Your task to perform on an android device: Open the calendar and show me this week's events? Image 0: 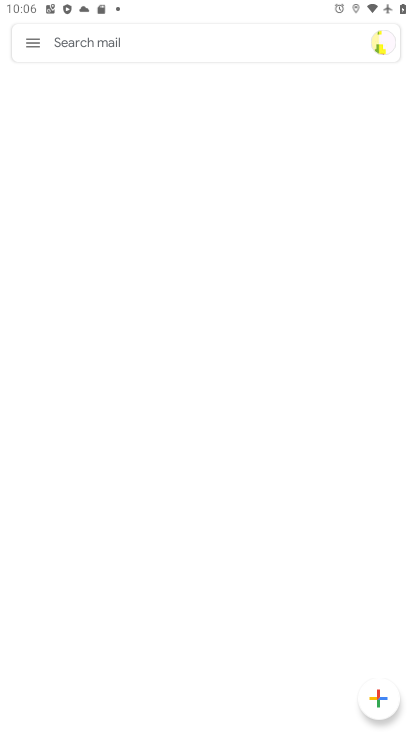
Step 0: press home button
Your task to perform on an android device: Open the calendar and show me this week's events? Image 1: 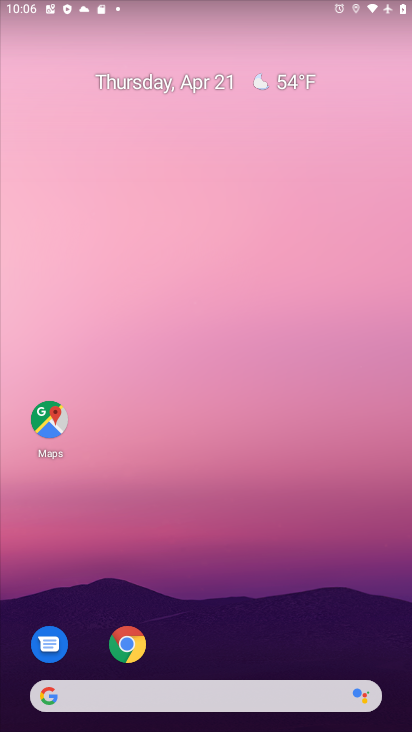
Step 1: drag from (182, 504) to (137, 167)
Your task to perform on an android device: Open the calendar and show me this week's events? Image 2: 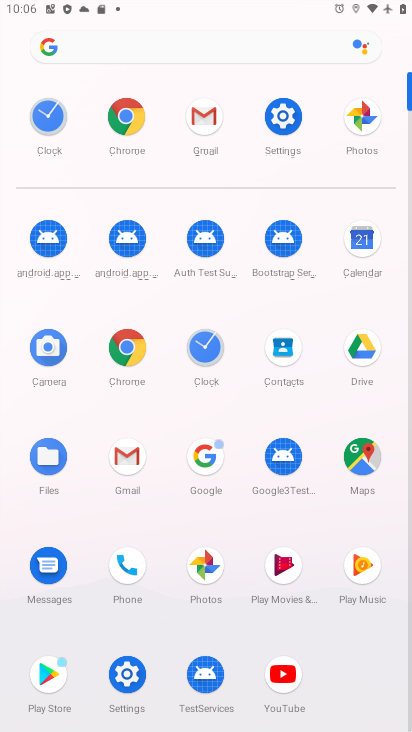
Step 2: click (363, 243)
Your task to perform on an android device: Open the calendar and show me this week's events? Image 3: 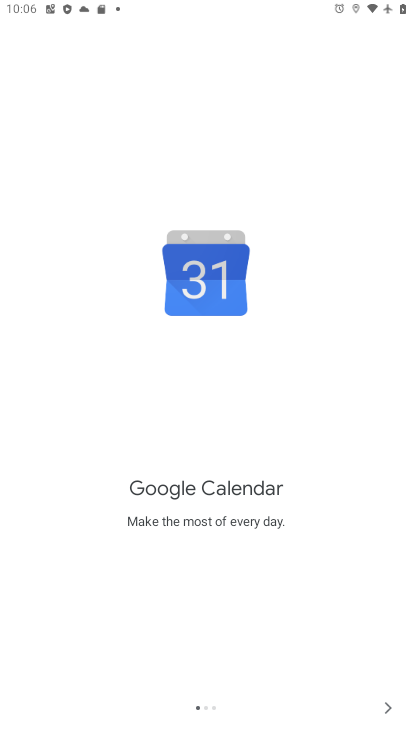
Step 3: click (390, 706)
Your task to perform on an android device: Open the calendar and show me this week's events? Image 4: 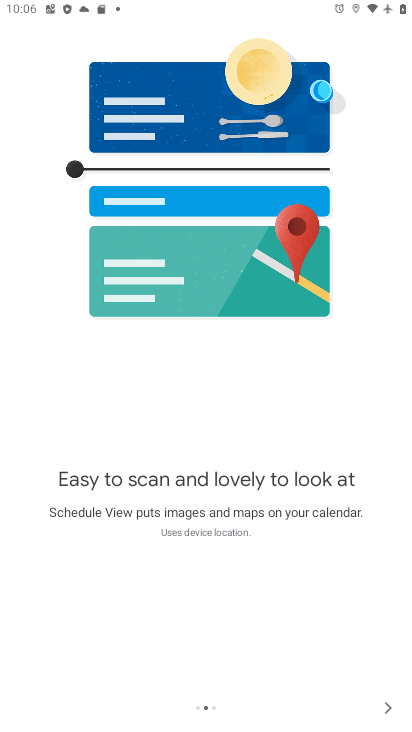
Step 4: click (390, 706)
Your task to perform on an android device: Open the calendar and show me this week's events? Image 5: 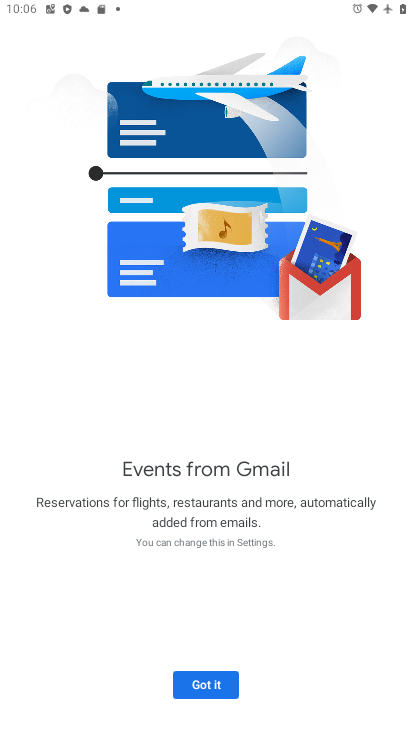
Step 5: click (197, 694)
Your task to perform on an android device: Open the calendar and show me this week's events? Image 6: 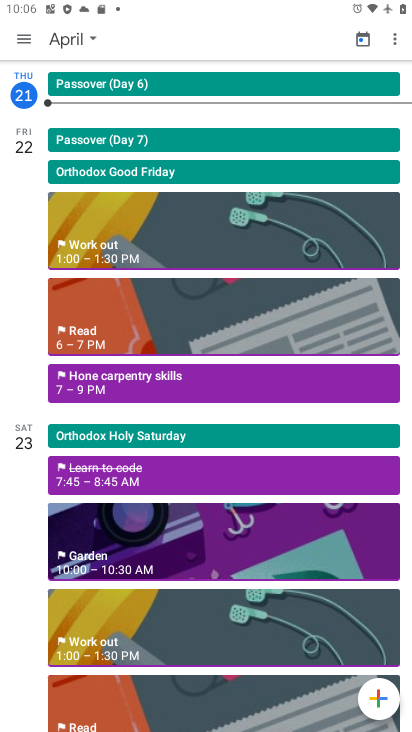
Step 6: task complete